Your task to perform on an android device: Open Google Image 0: 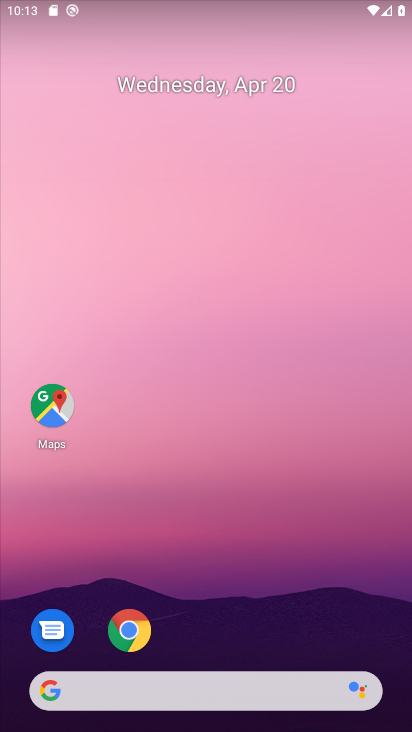
Step 0: drag from (269, 593) to (276, 297)
Your task to perform on an android device: Open Google Image 1: 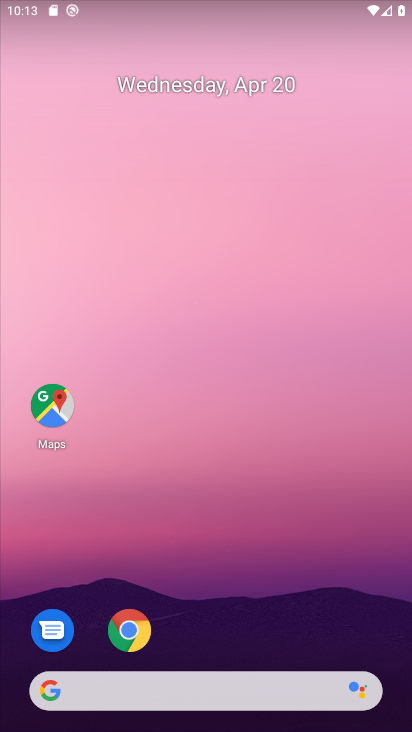
Step 1: drag from (204, 641) to (269, 209)
Your task to perform on an android device: Open Google Image 2: 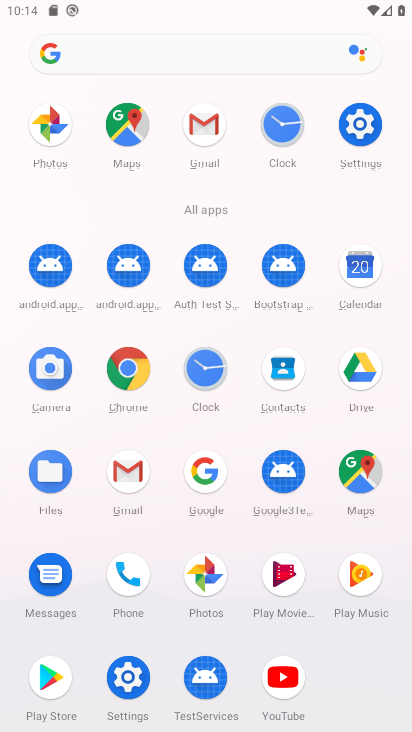
Step 2: click (207, 458)
Your task to perform on an android device: Open Google Image 3: 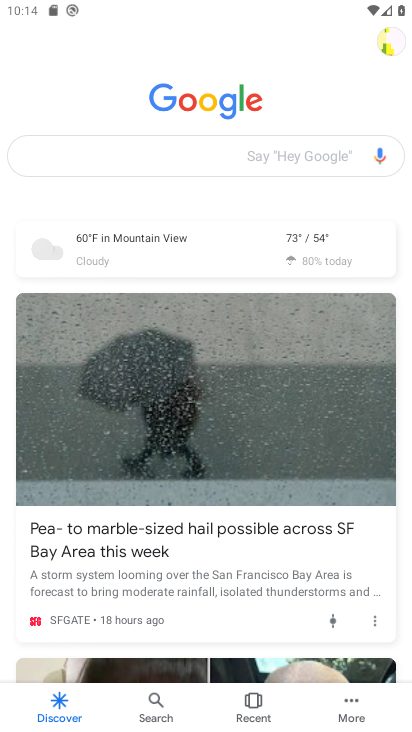
Step 3: task complete